Your task to perform on an android device: Open the web browser Image 0: 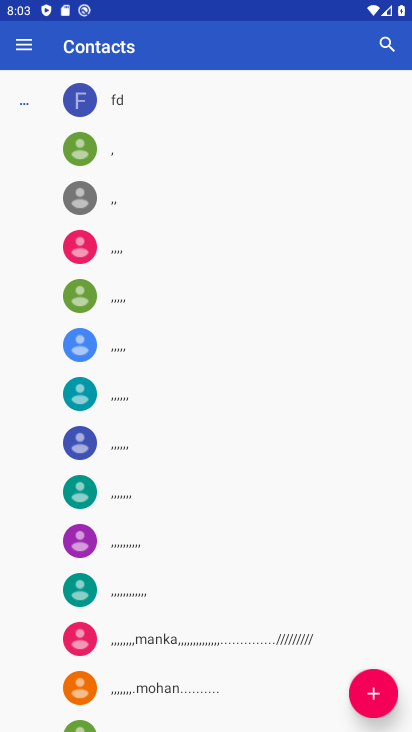
Step 0: press home button
Your task to perform on an android device: Open the web browser Image 1: 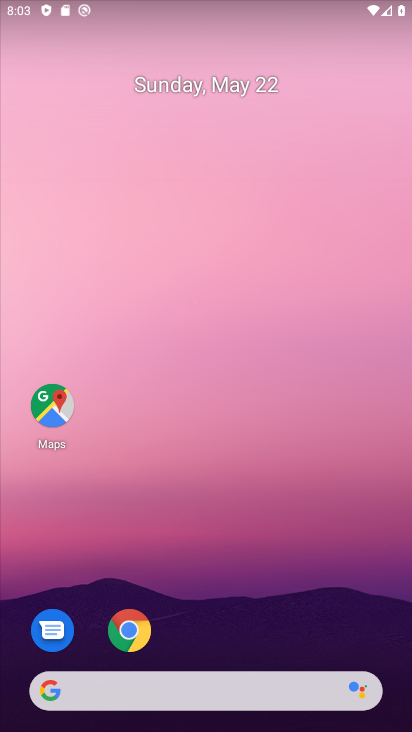
Step 1: click (136, 626)
Your task to perform on an android device: Open the web browser Image 2: 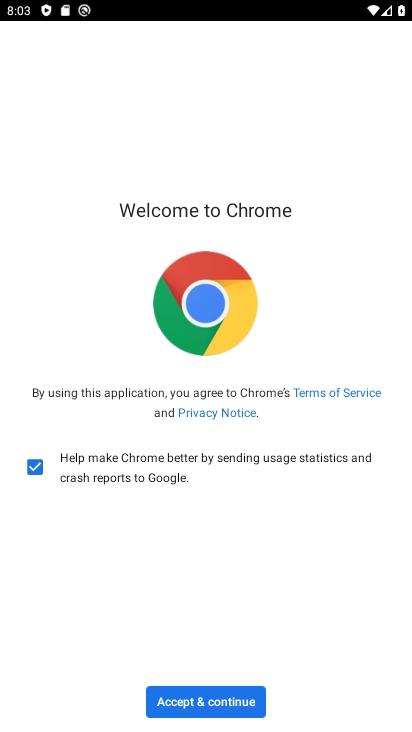
Step 2: click (199, 690)
Your task to perform on an android device: Open the web browser Image 3: 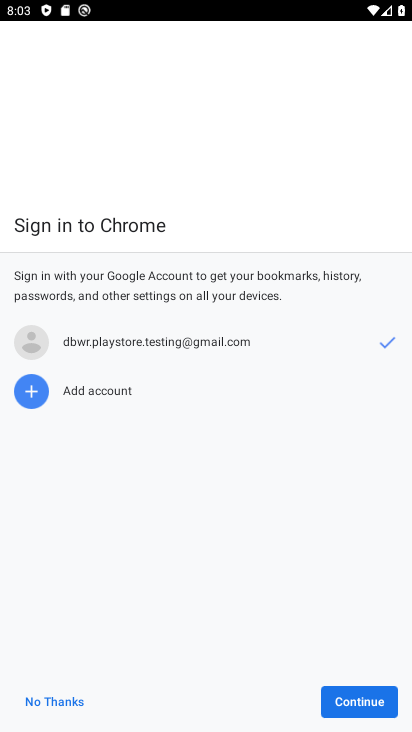
Step 3: click (356, 708)
Your task to perform on an android device: Open the web browser Image 4: 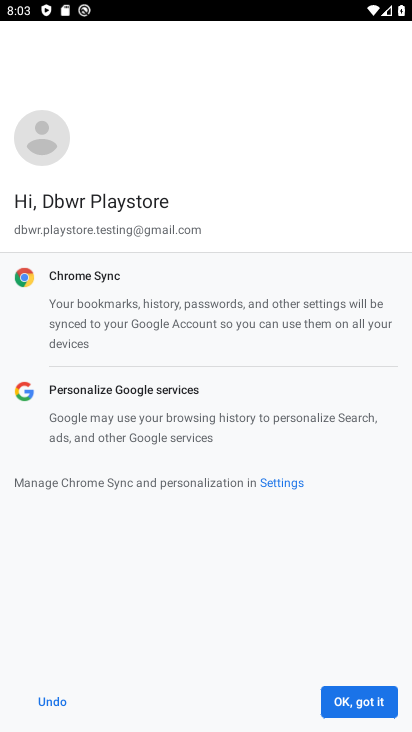
Step 4: click (356, 708)
Your task to perform on an android device: Open the web browser Image 5: 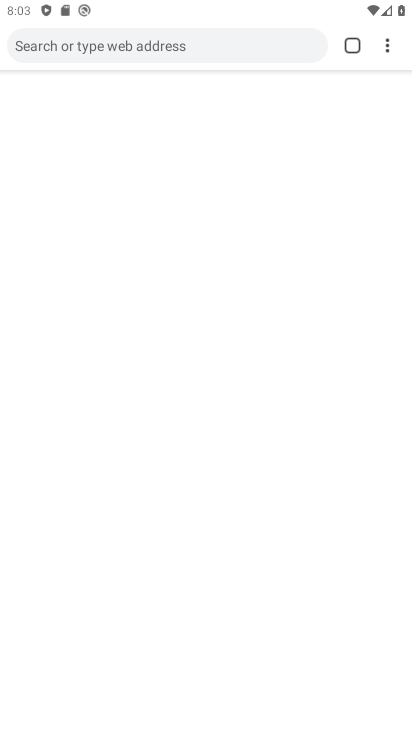
Step 5: task complete